Your task to perform on an android device: open app "Spotify" (install if not already installed), go to login, and select forgot password Image 0: 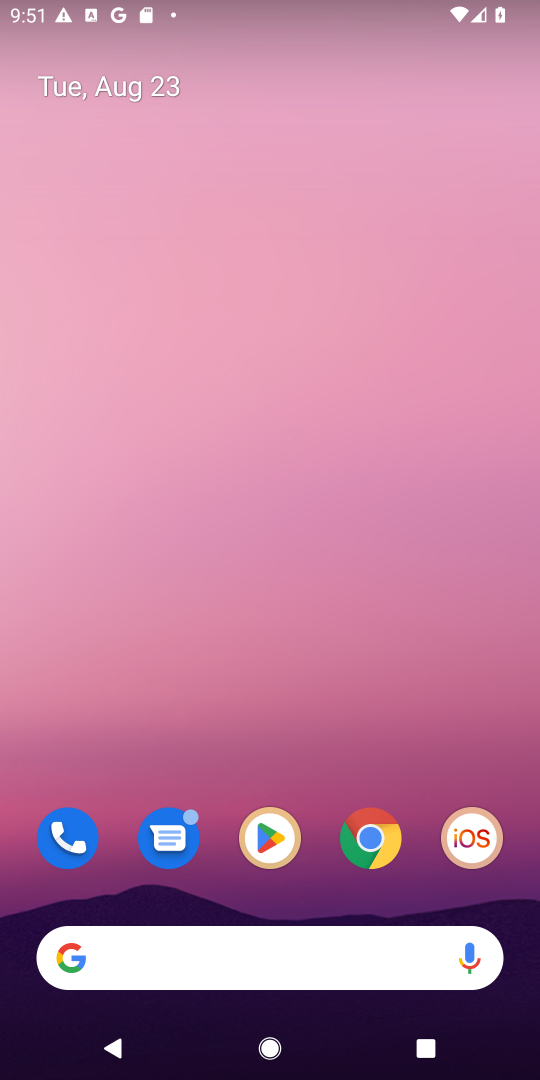
Step 0: click (254, 834)
Your task to perform on an android device: open app "Spotify" (install if not already installed), go to login, and select forgot password Image 1: 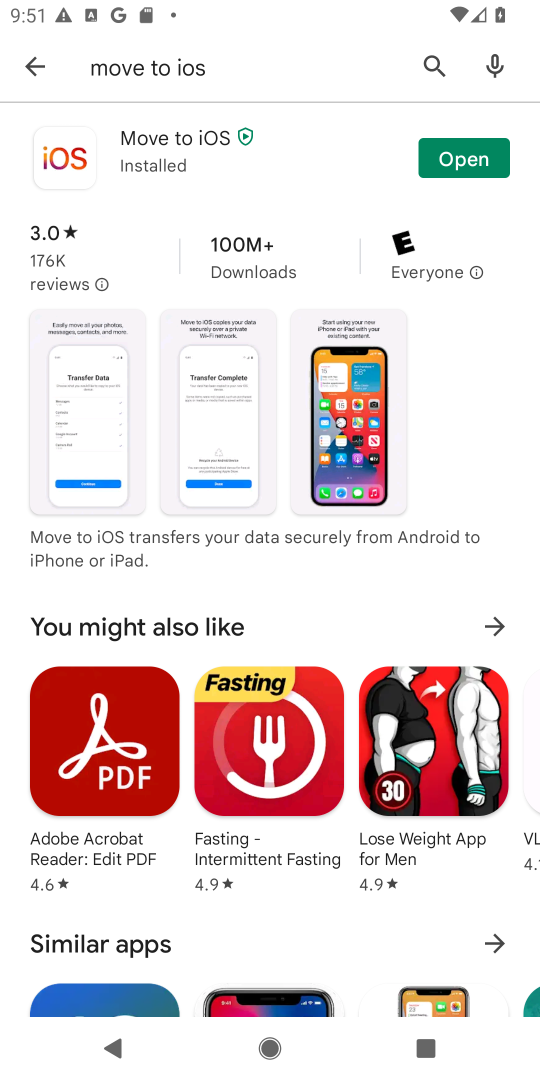
Step 1: click (436, 63)
Your task to perform on an android device: open app "Spotify" (install if not already installed), go to login, and select forgot password Image 2: 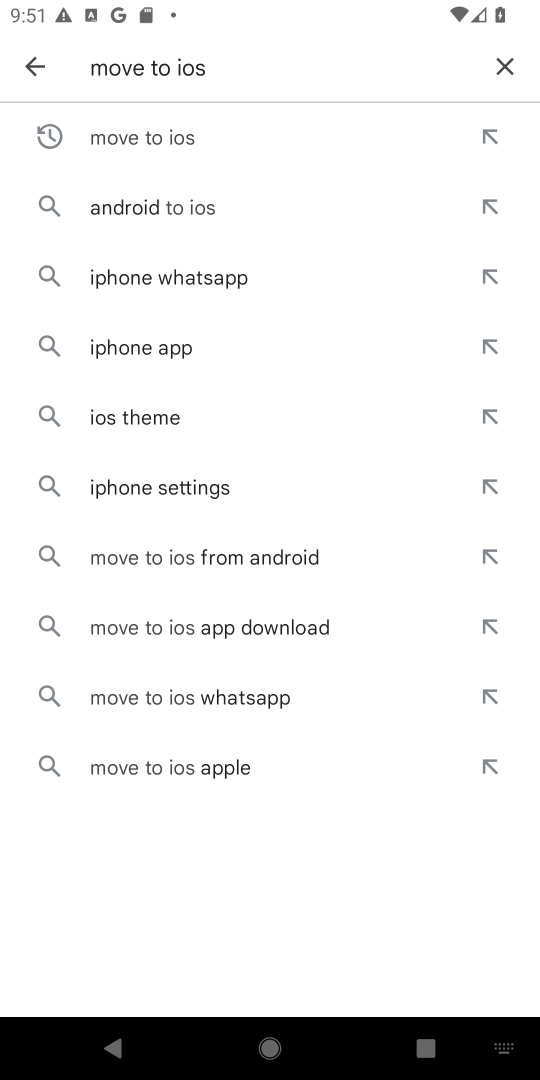
Step 2: click (502, 68)
Your task to perform on an android device: open app "Spotify" (install if not already installed), go to login, and select forgot password Image 3: 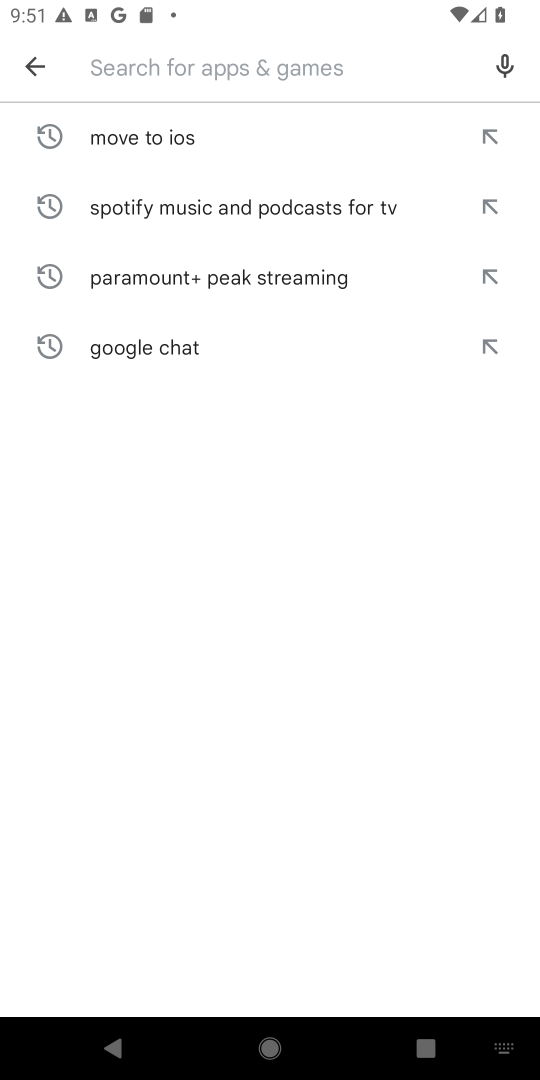
Step 3: type "Spotify"
Your task to perform on an android device: open app "Spotify" (install if not already installed), go to login, and select forgot password Image 4: 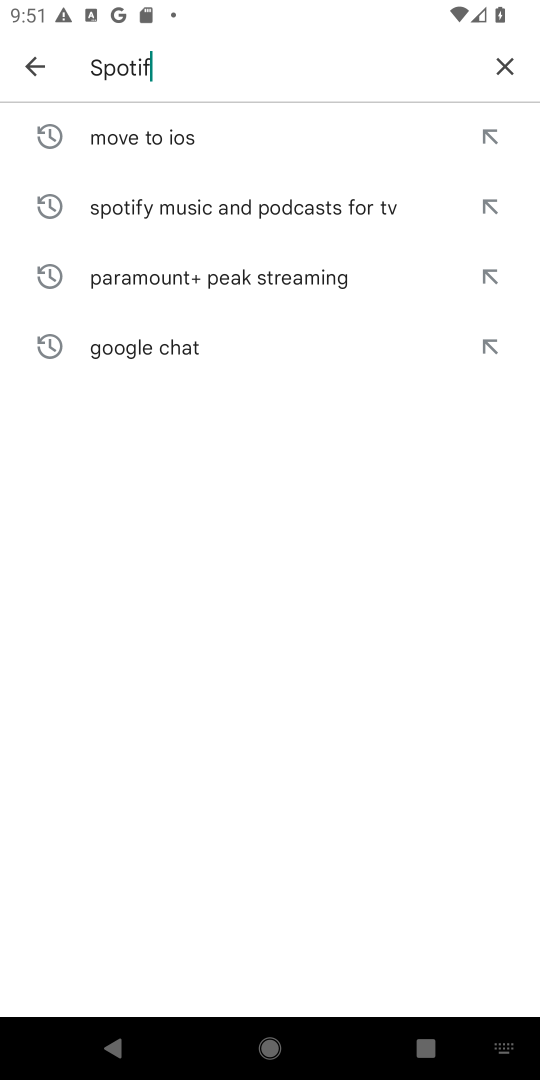
Step 4: type ""
Your task to perform on an android device: open app "Spotify" (install if not already installed), go to login, and select forgot password Image 5: 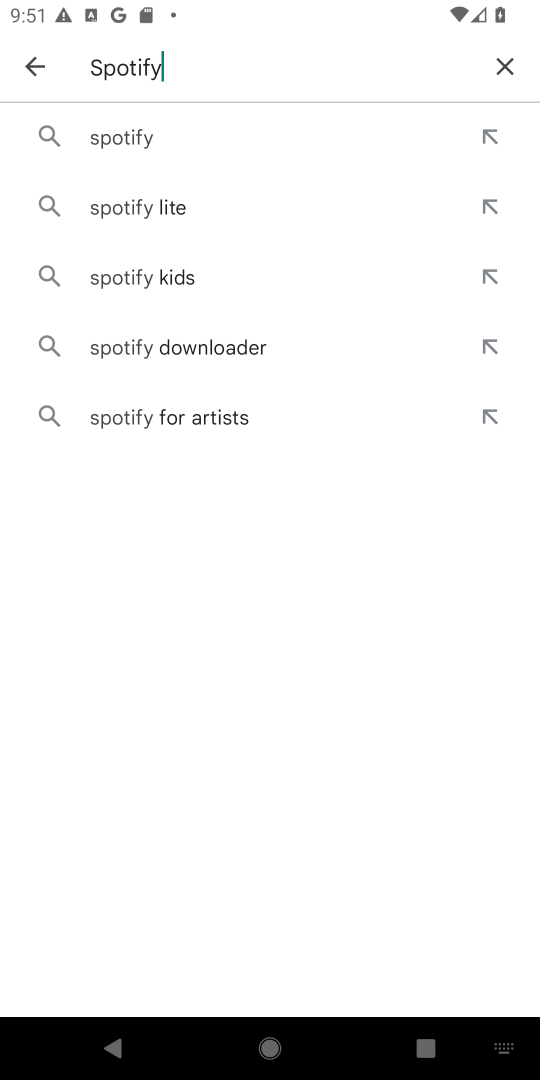
Step 5: click (151, 142)
Your task to perform on an android device: open app "Spotify" (install if not already installed), go to login, and select forgot password Image 6: 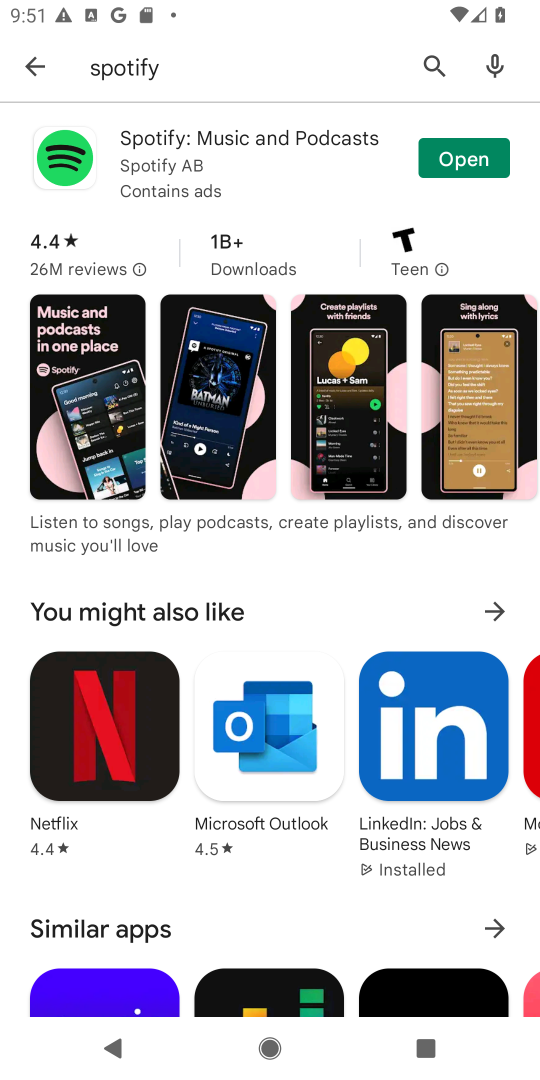
Step 6: click (467, 151)
Your task to perform on an android device: open app "Spotify" (install if not already installed), go to login, and select forgot password Image 7: 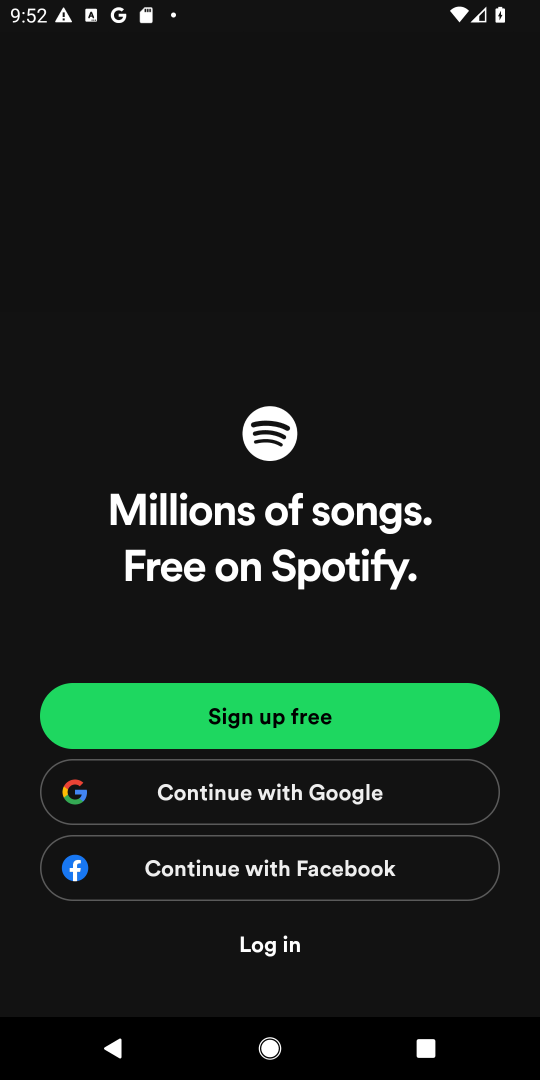
Step 7: task complete